Your task to perform on an android device: search for starred emails in the gmail app Image 0: 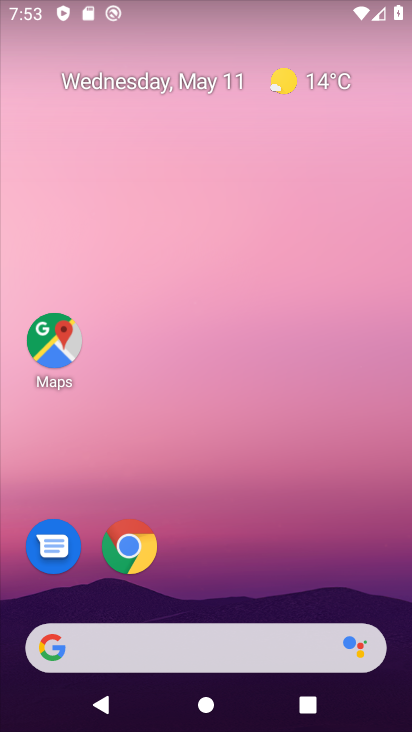
Step 0: drag from (221, 623) to (203, 47)
Your task to perform on an android device: search for starred emails in the gmail app Image 1: 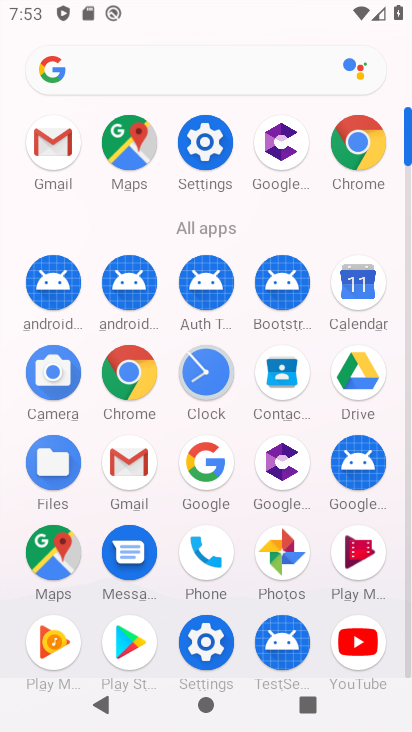
Step 1: click (106, 477)
Your task to perform on an android device: search for starred emails in the gmail app Image 2: 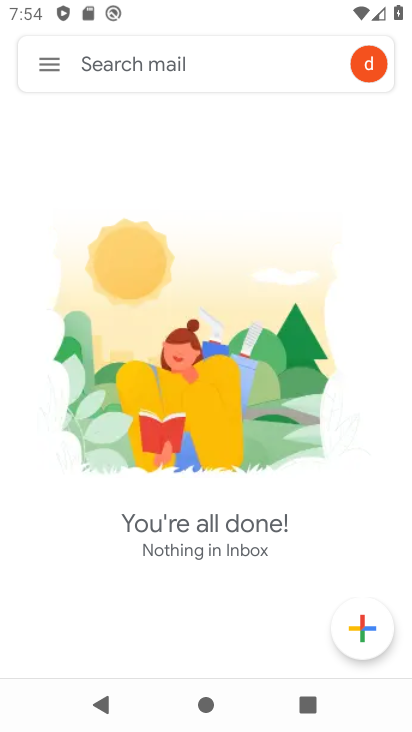
Step 2: click (53, 67)
Your task to perform on an android device: search for starred emails in the gmail app Image 3: 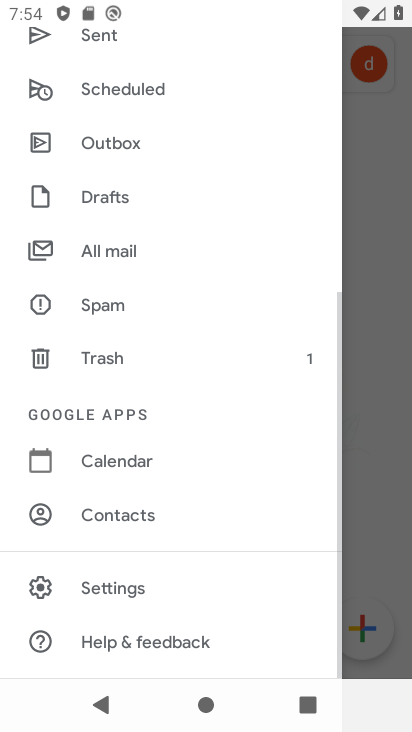
Step 3: drag from (122, 190) to (149, 539)
Your task to perform on an android device: search for starred emails in the gmail app Image 4: 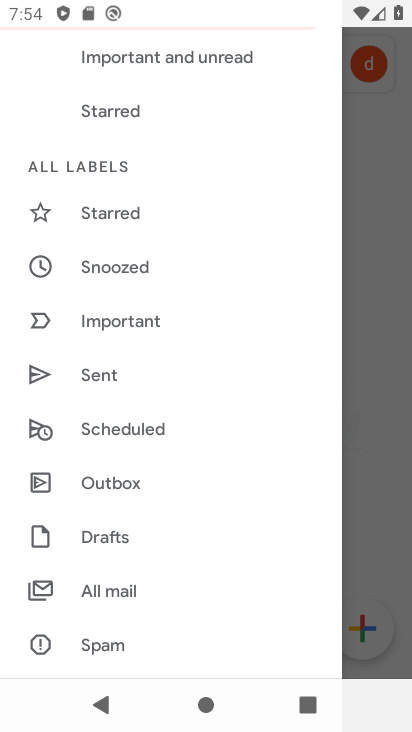
Step 4: click (66, 198)
Your task to perform on an android device: search for starred emails in the gmail app Image 5: 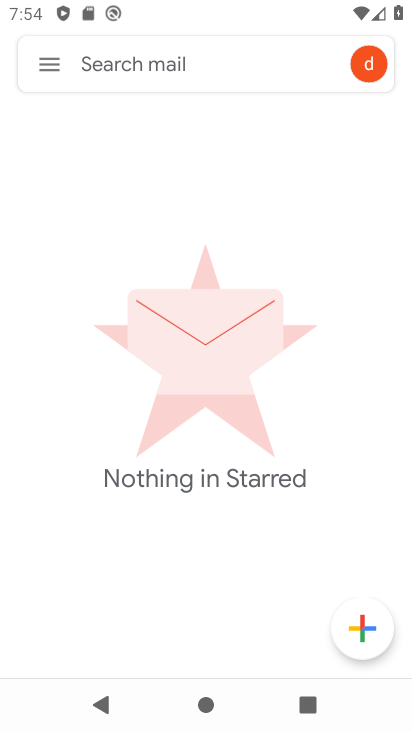
Step 5: task complete